Your task to perform on an android device: Open CNN.com Image 0: 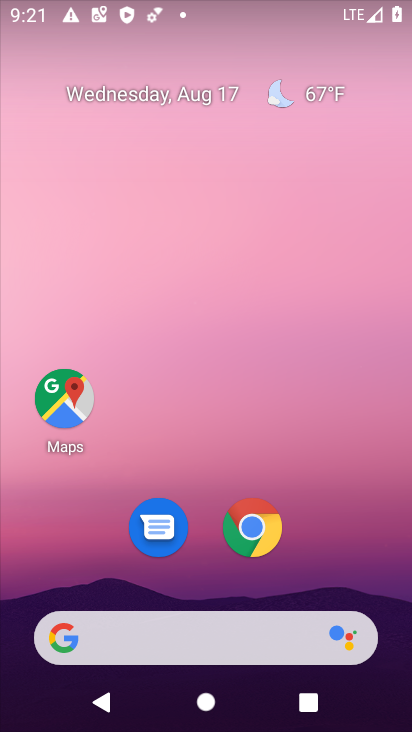
Step 0: click (162, 622)
Your task to perform on an android device: Open CNN.com Image 1: 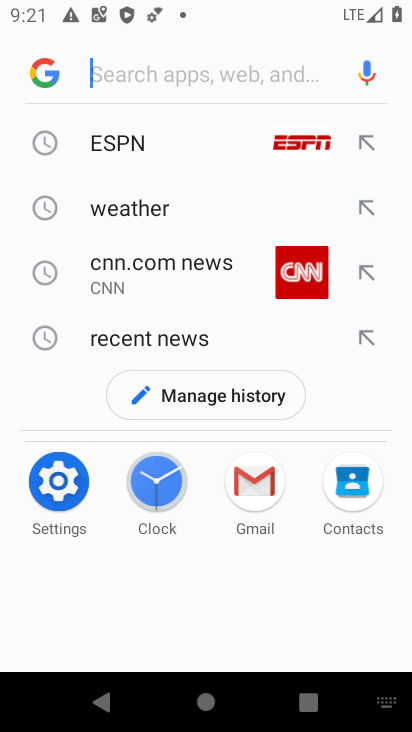
Step 1: type "cnn"
Your task to perform on an android device: Open CNN.com Image 2: 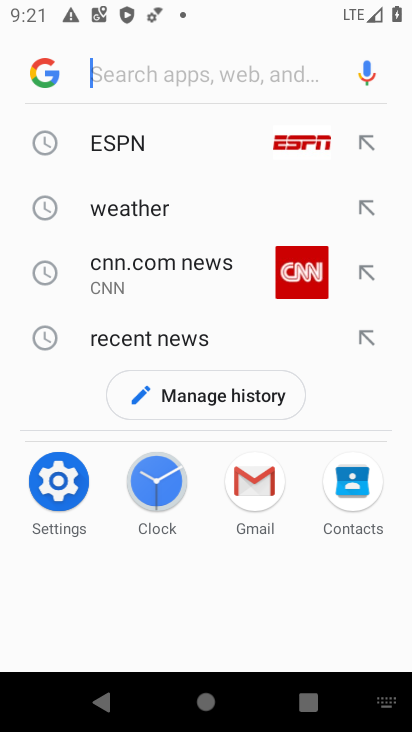
Step 2: click (272, 262)
Your task to perform on an android device: Open CNN.com Image 3: 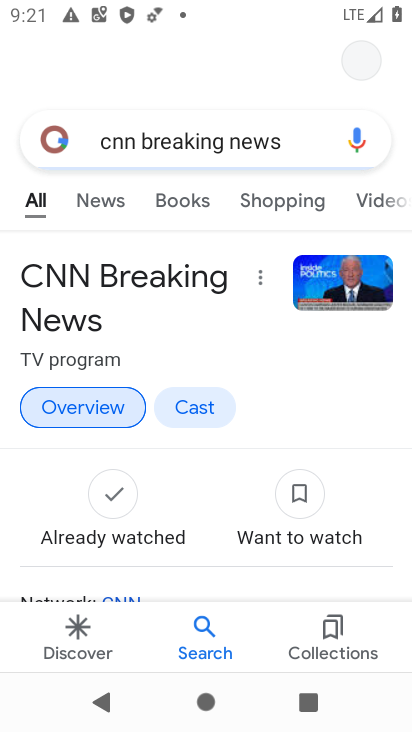
Step 3: click (297, 150)
Your task to perform on an android device: Open CNN.com Image 4: 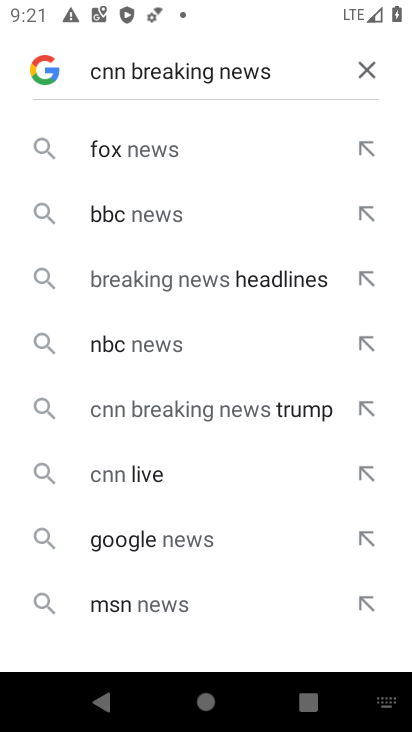
Step 4: press back button
Your task to perform on an android device: Open CNN.com Image 5: 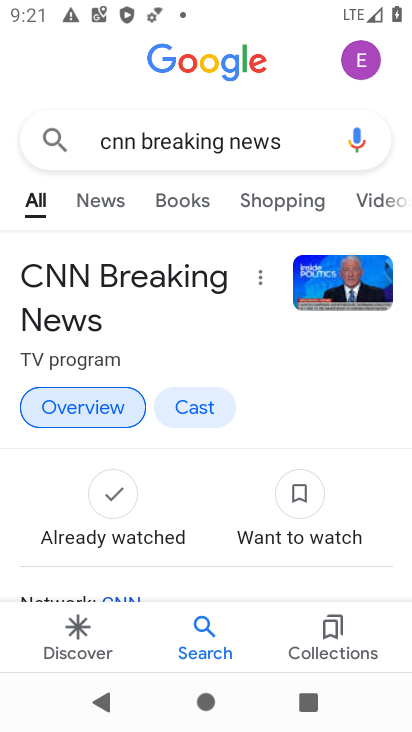
Step 5: drag from (176, 521) to (203, 196)
Your task to perform on an android device: Open CNN.com Image 6: 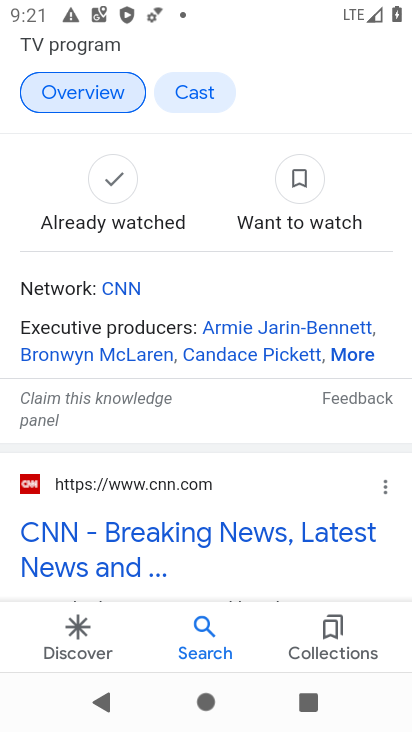
Step 6: click (133, 509)
Your task to perform on an android device: Open CNN.com Image 7: 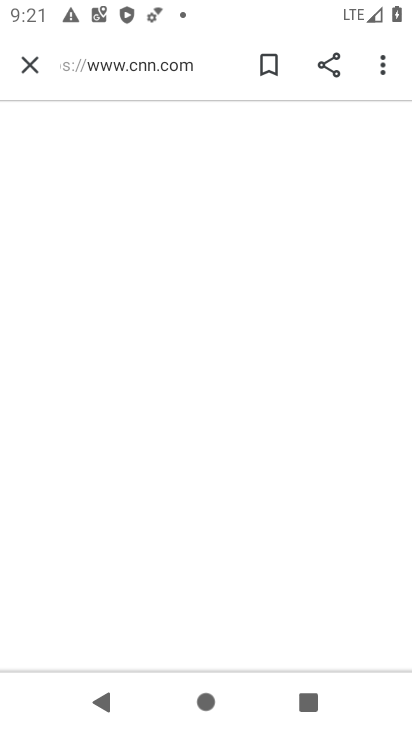
Step 7: click (124, 529)
Your task to perform on an android device: Open CNN.com Image 8: 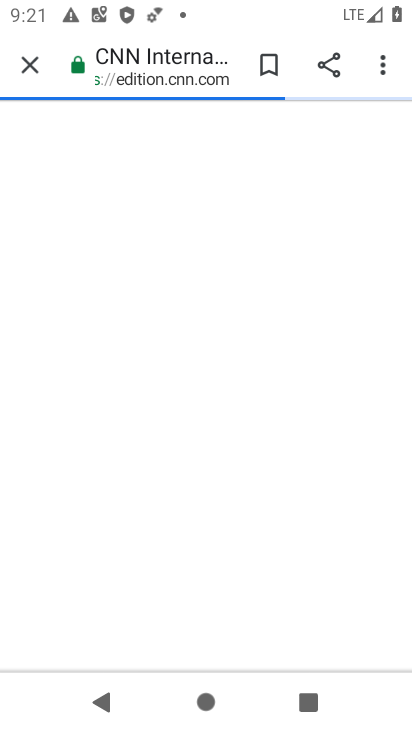
Step 8: task complete